Your task to perform on an android device: What is the news today? Image 0: 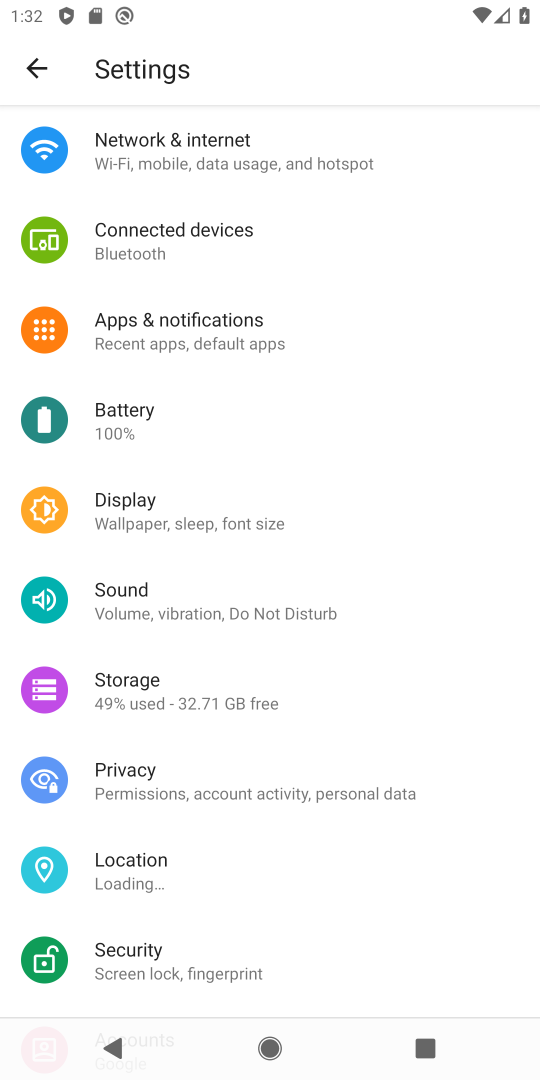
Step 0: press home button
Your task to perform on an android device: What is the news today? Image 1: 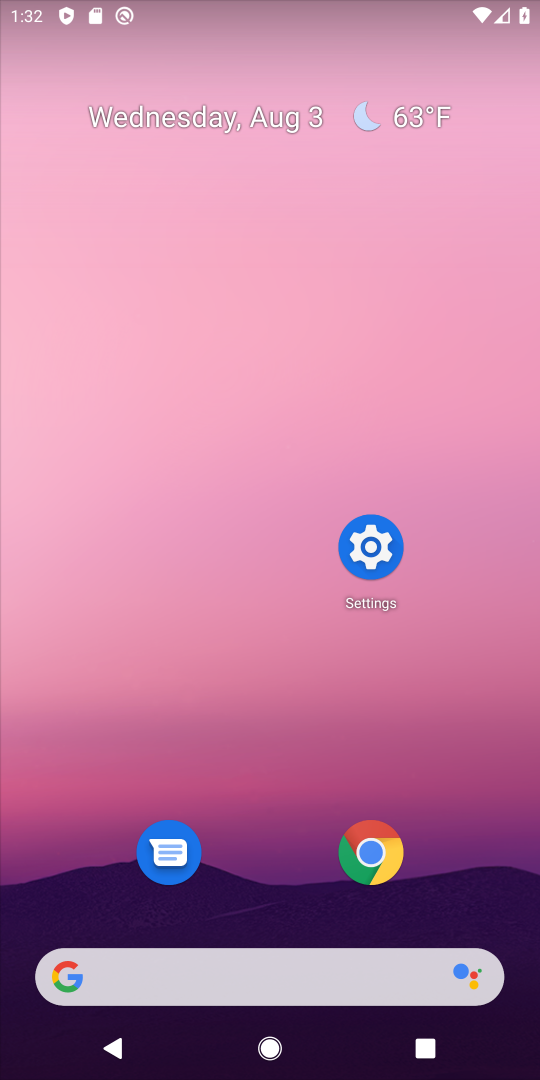
Step 1: click (194, 968)
Your task to perform on an android device: What is the news today? Image 2: 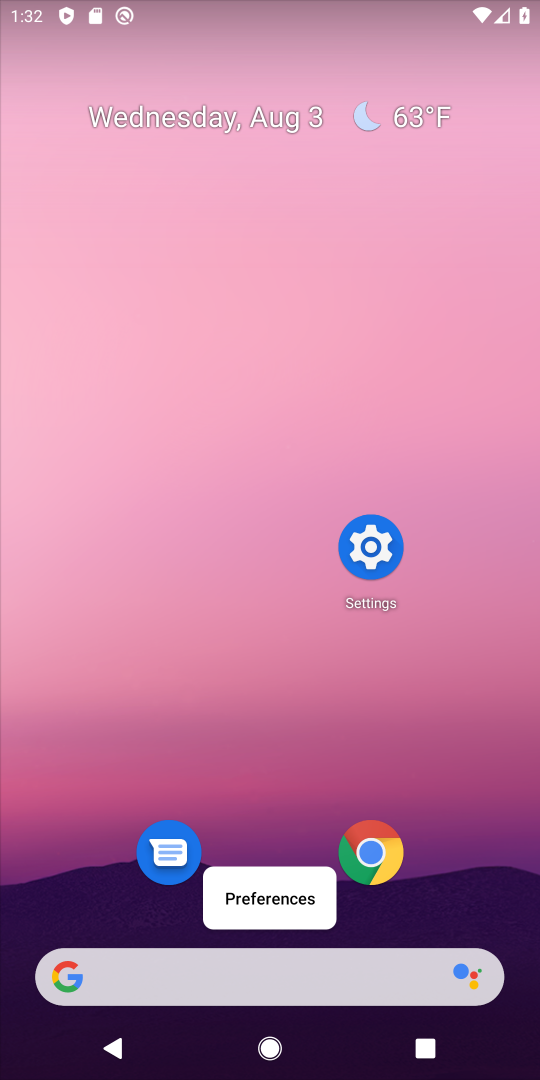
Step 2: click (179, 967)
Your task to perform on an android device: What is the news today? Image 3: 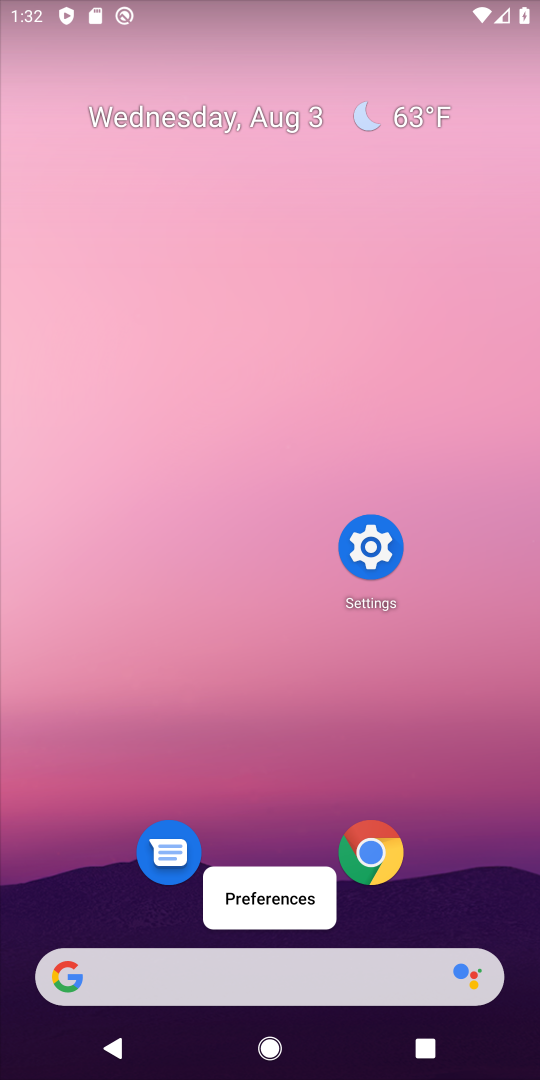
Step 3: click (165, 962)
Your task to perform on an android device: What is the news today? Image 4: 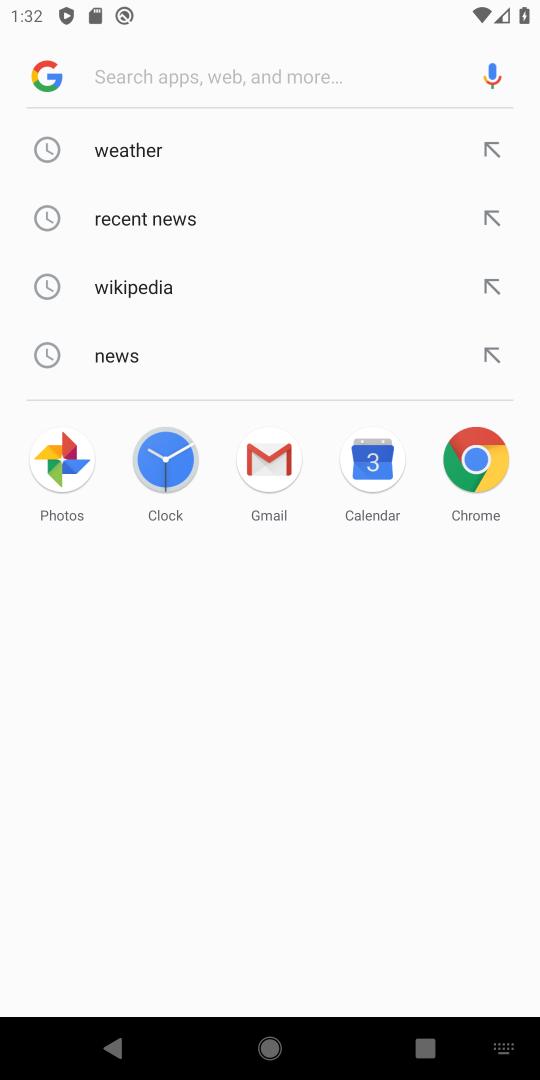
Step 4: click (173, 228)
Your task to perform on an android device: What is the news today? Image 5: 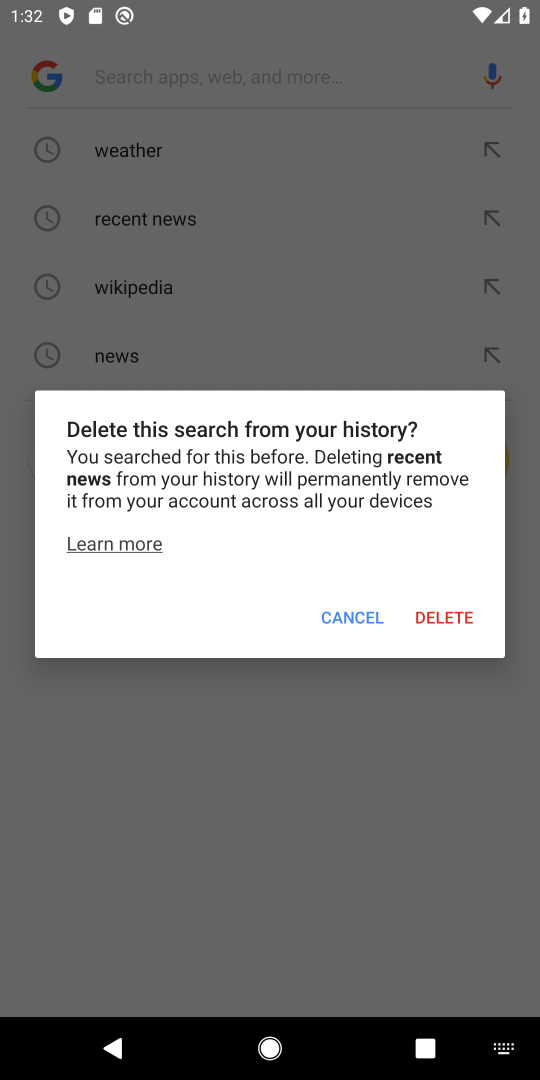
Step 5: click (343, 608)
Your task to perform on an android device: What is the news today? Image 6: 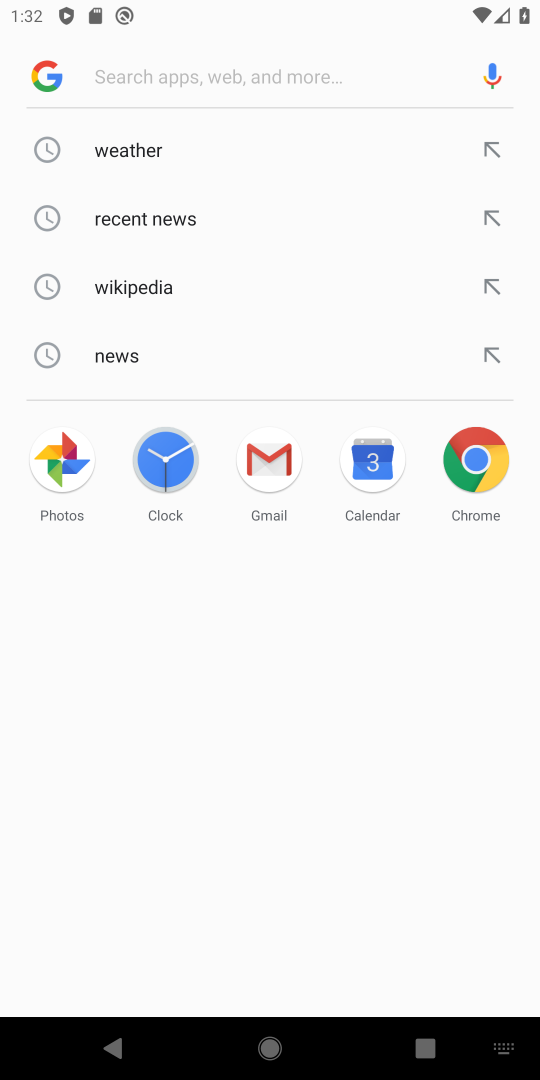
Step 6: click (150, 217)
Your task to perform on an android device: What is the news today? Image 7: 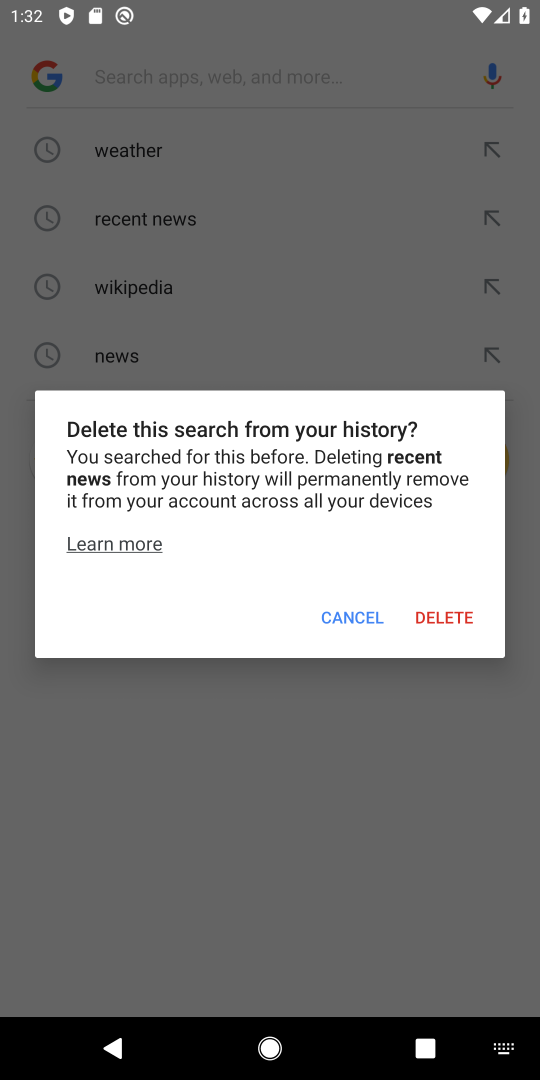
Step 7: click (355, 623)
Your task to perform on an android device: What is the news today? Image 8: 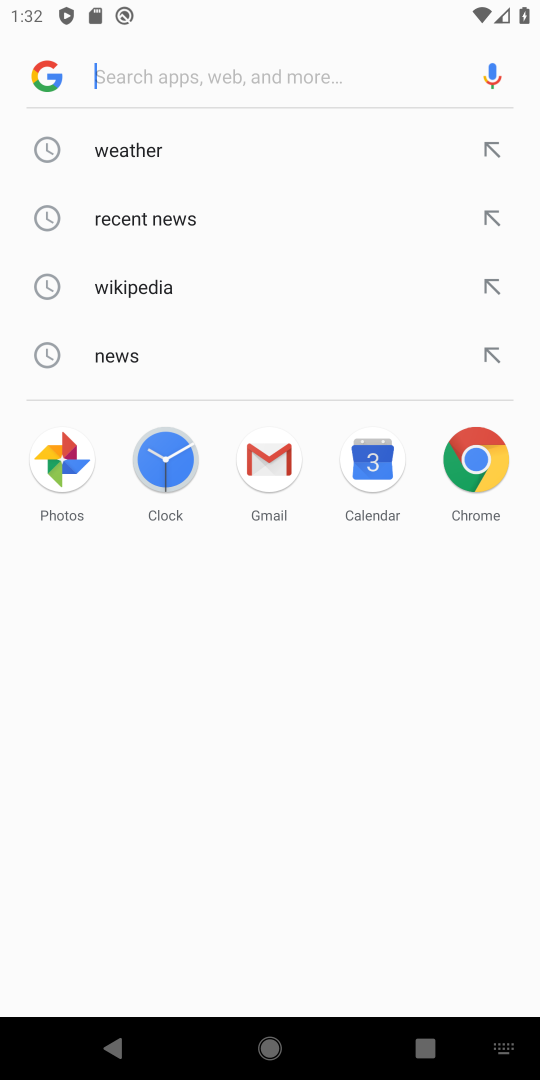
Step 8: click (100, 218)
Your task to perform on an android device: What is the news today? Image 9: 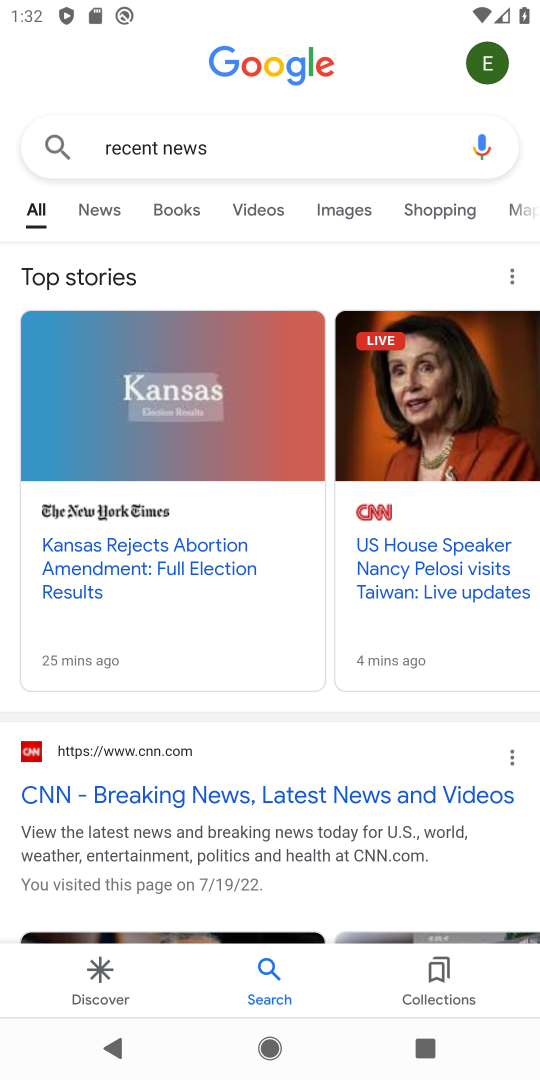
Step 9: click (110, 207)
Your task to perform on an android device: What is the news today? Image 10: 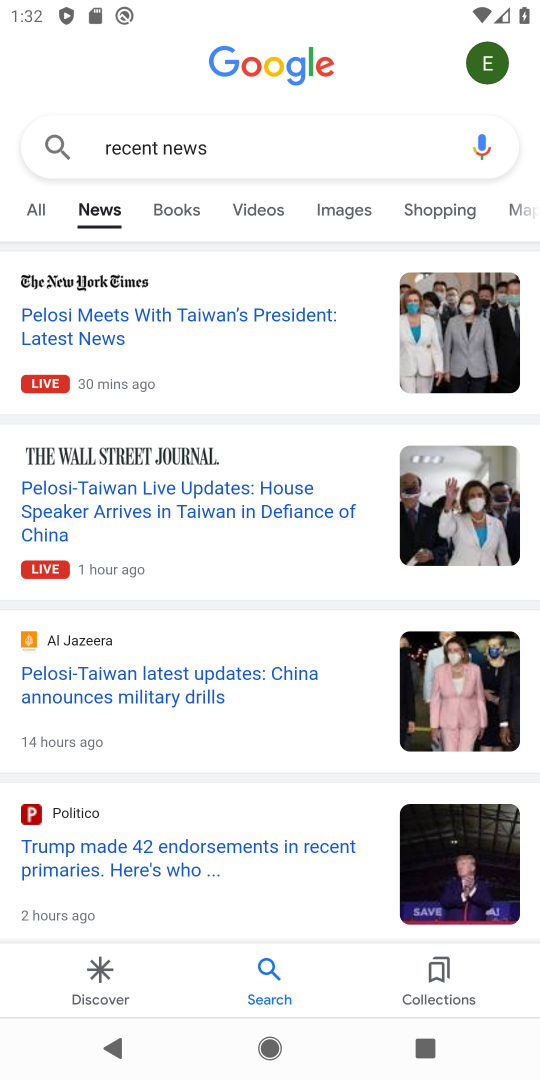
Step 10: task complete